Your task to perform on an android device: turn pop-ups off in chrome Image 0: 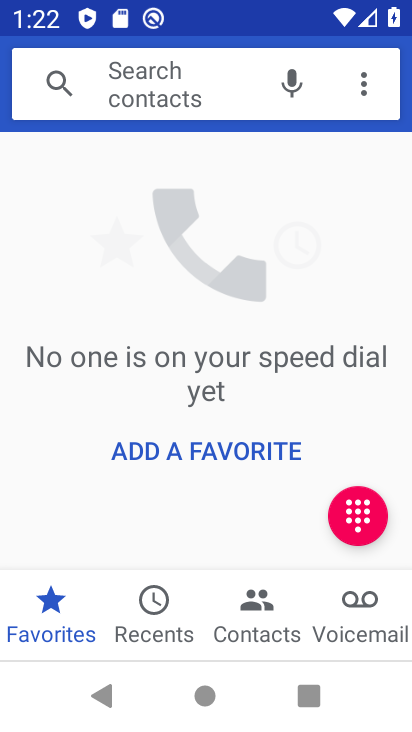
Step 0: press home button
Your task to perform on an android device: turn pop-ups off in chrome Image 1: 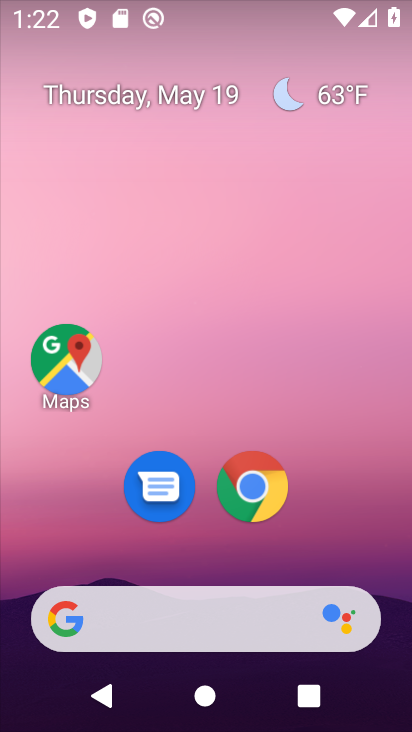
Step 1: click (261, 484)
Your task to perform on an android device: turn pop-ups off in chrome Image 2: 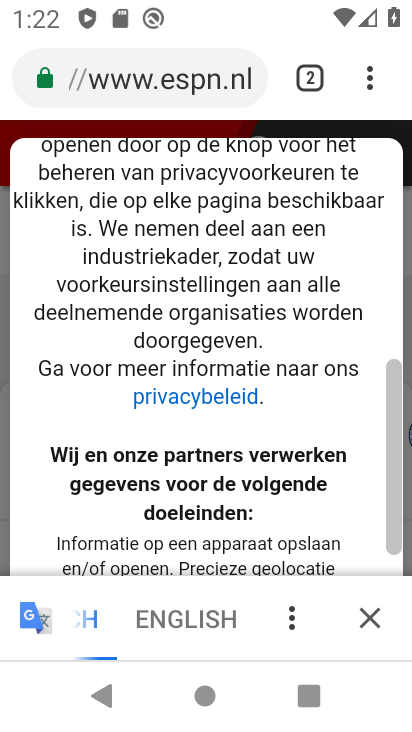
Step 2: click (368, 76)
Your task to perform on an android device: turn pop-ups off in chrome Image 3: 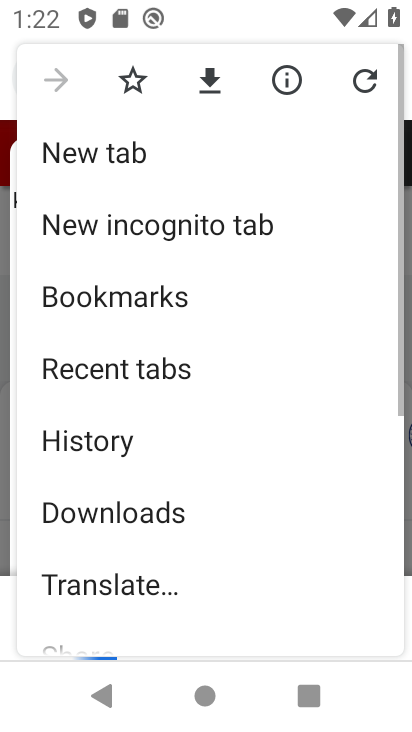
Step 3: drag from (277, 549) to (216, 115)
Your task to perform on an android device: turn pop-ups off in chrome Image 4: 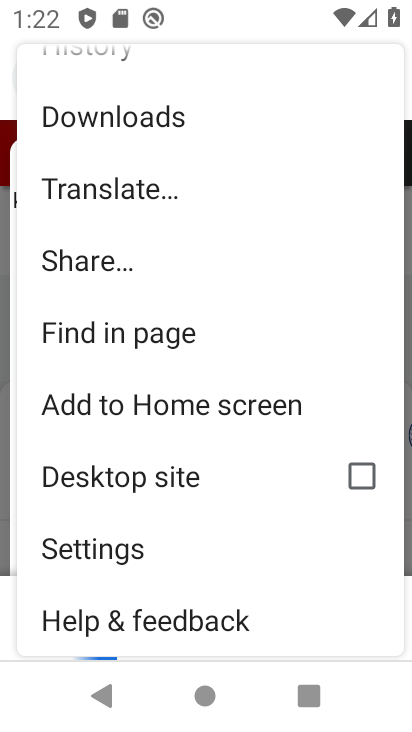
Step 4: click (153, 532)
Your task to perform on an android device: turn pop-ups off in chrome Image 5: 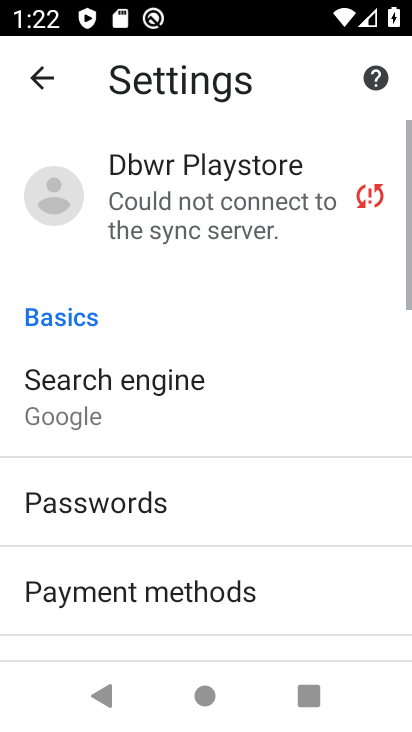
Step 5: drag from (215, 559) to (211, 47)
Your task to perform on an android device: turn pop-ups off in chrome Image 6: 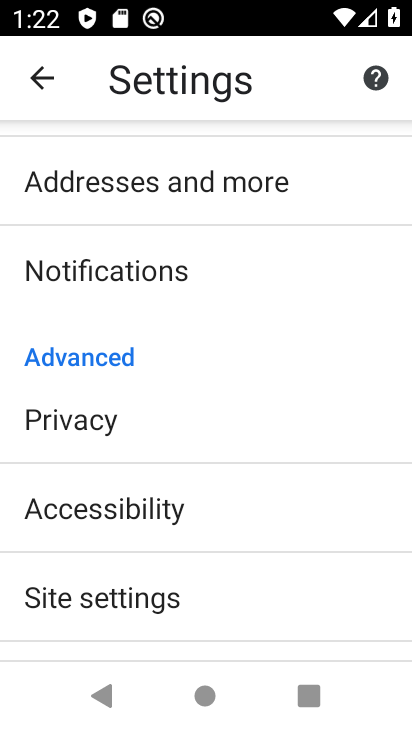
Step 6: drag from (210, 501) to (210, 202)
Your task to perform on an android device: turn pop-ups off in chrome Image 7: 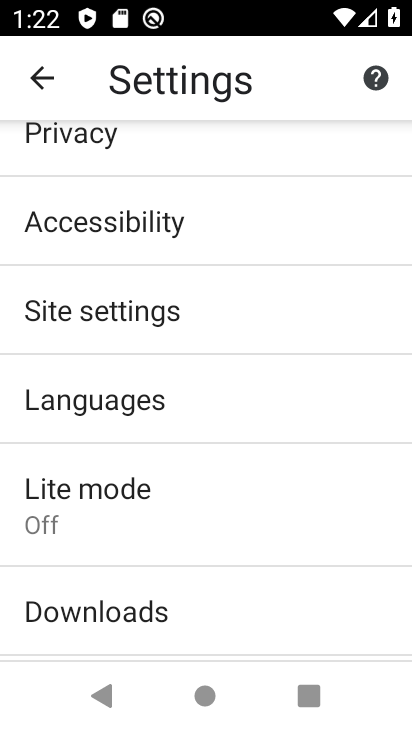
Step 7: click (163, 285)
Your task to perform on an android device: turn pop-ups off in chrome Image 8: 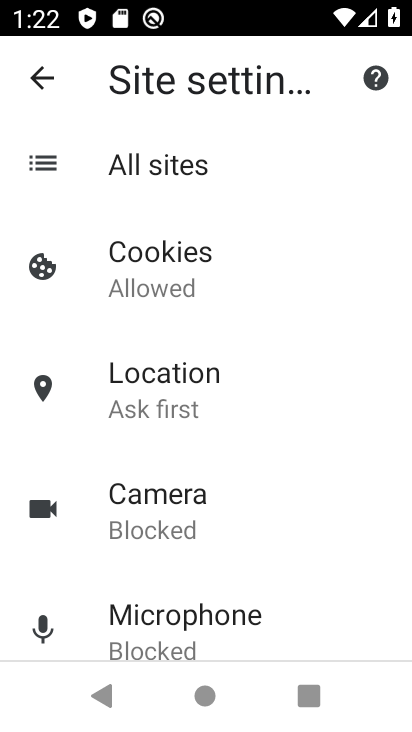
Step 8: drag from (251, 572) to (270, 212)
Your task to perform on an android device: turn pop-ups off in chrome Image 9: 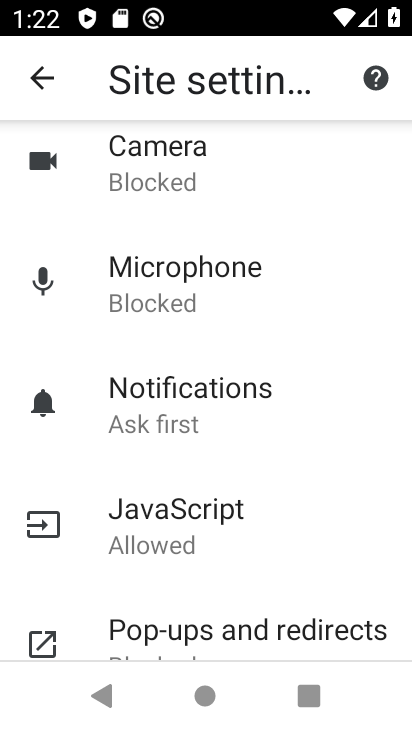
Step 9: drag from (231, 531) to (200, 198)
Your task to perform on an android device: turn pop-ups off in chrome Image 10: 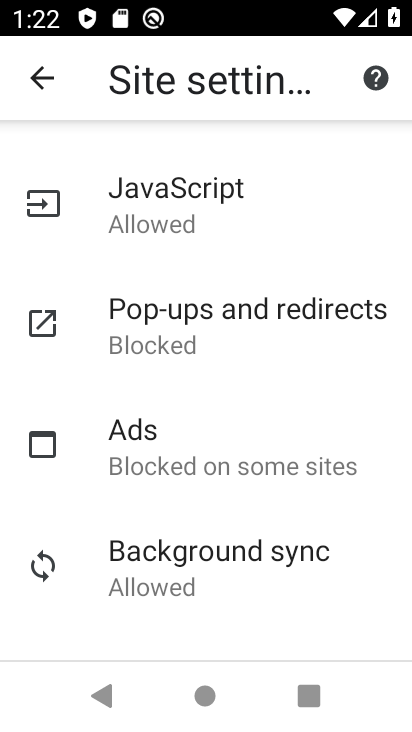
Step 10: click (209, 317)
Your task to perform on an android device: turn pop-ups off in chrome Image 11: 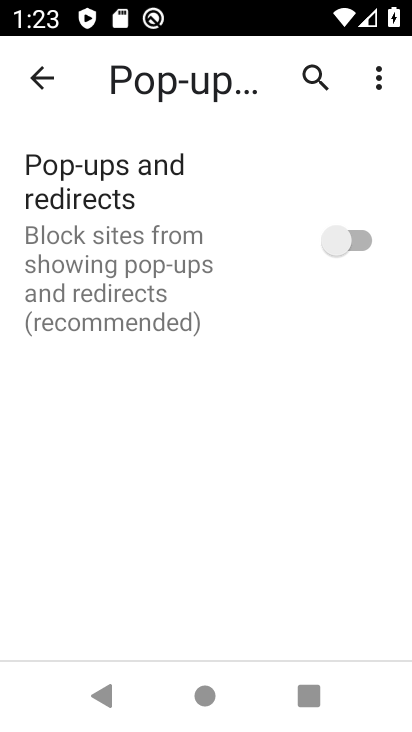
Step 11: task complete